Your task to perform on an android device: What's on my calendar tomorrow? Image 0: 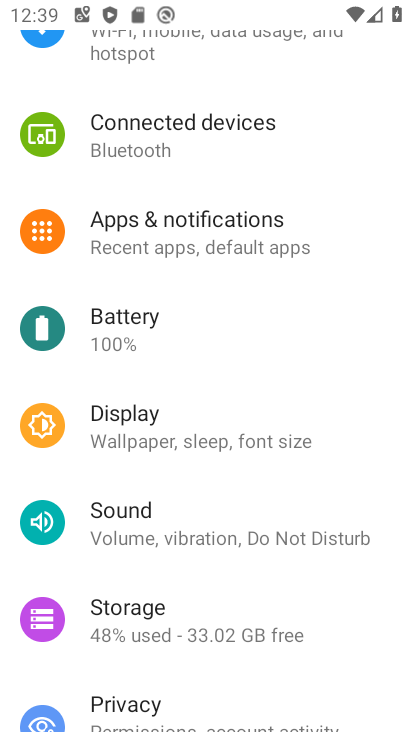
Step 0: press home button
Your task to perform on an android device: What's on my calendar tomorrow? Image 1: 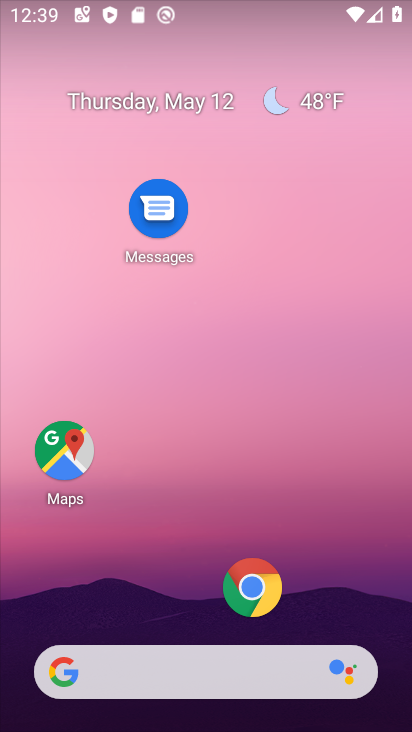
Step 1: drag from (220, 628) to (161, 127)
Your task to perform on an android device: What's on my calendar tomorrow? Image 2: 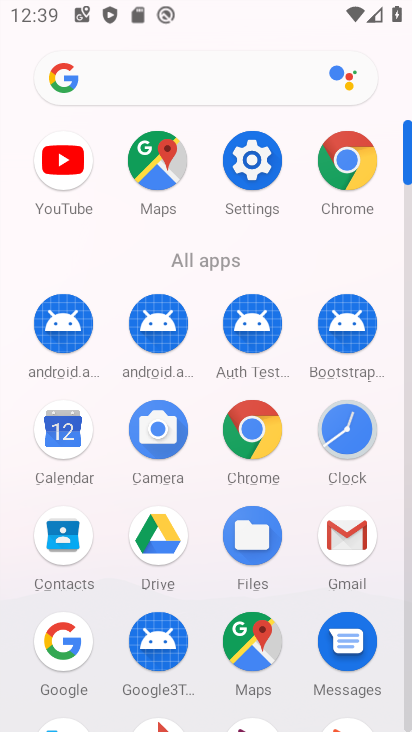
Step 2: click (57, 445)
Your task to perform on an android device: What's on my calendar tomorrow? Image 3: 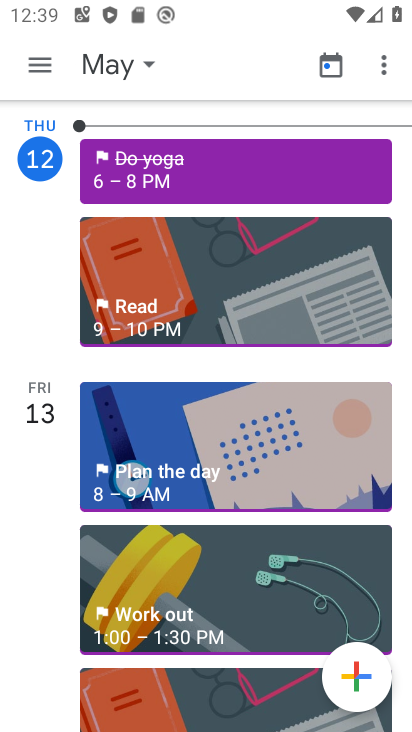
Step 3: click (32, 402)
Your task to perform on an android device: What's on my calendar tomorrow? Image 4: 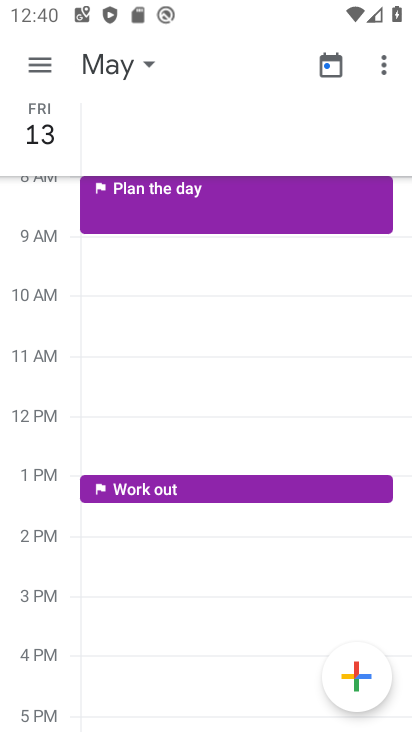
Step 4: task complete